Your task to perform on an android device: change the clock display to digital Image 0: 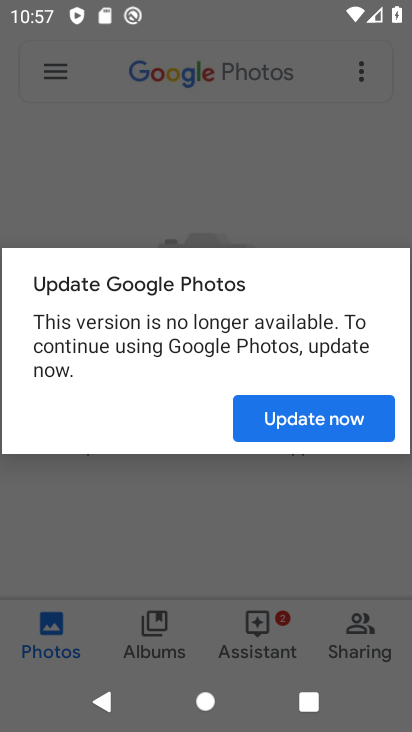
Step 0: click (355, 420)
Your task to perform on an android device: change the clock display to digital Image 1: 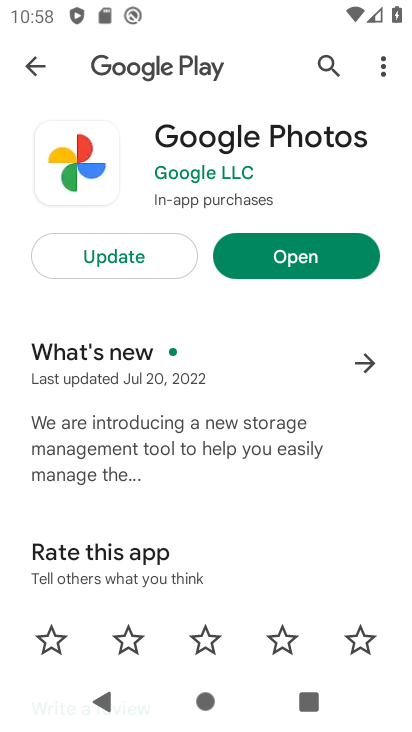
Step 1: press home button
Your task to perform on an android device: change the clock display to digital Image 2: 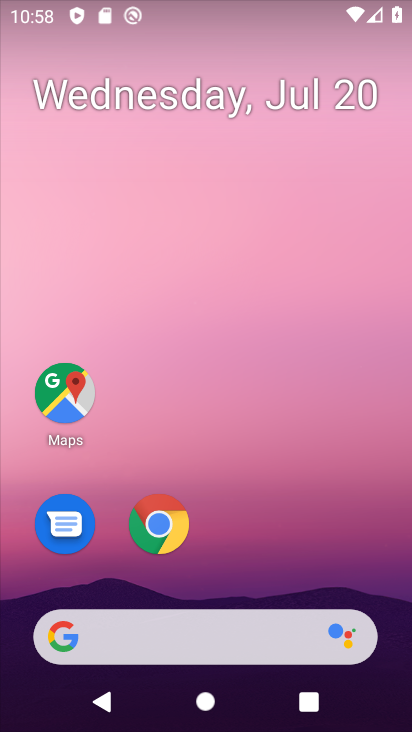
Step 2: drag from (269, 538) to (335, 59)
Your task to perform on an android device: change the clock display to digital Image 3: 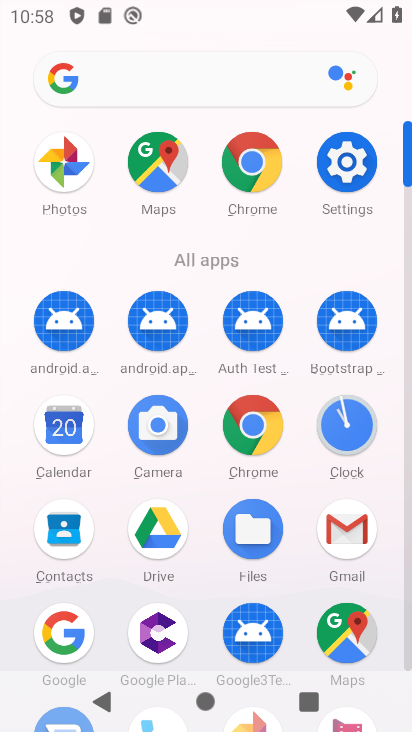
Step 3: click (350, 155)
Your task to perform on an android device: change the clock display to digital Image 4: 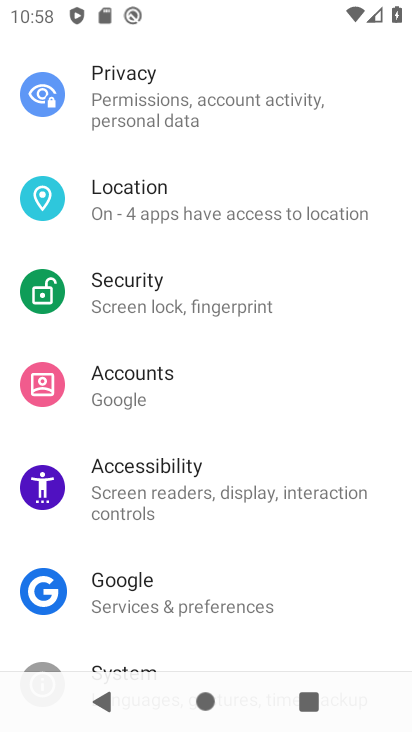
Step 4: press home button
Your task to perform on an android device: change the clock display to digital Image 5: 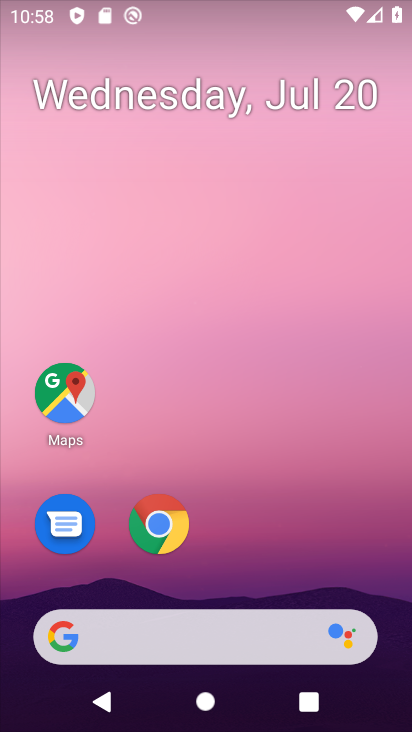
Step 5: drag from (335, 543) to (369, 80)
Your task to perform on an android device: change the clock display to digital Image 6: 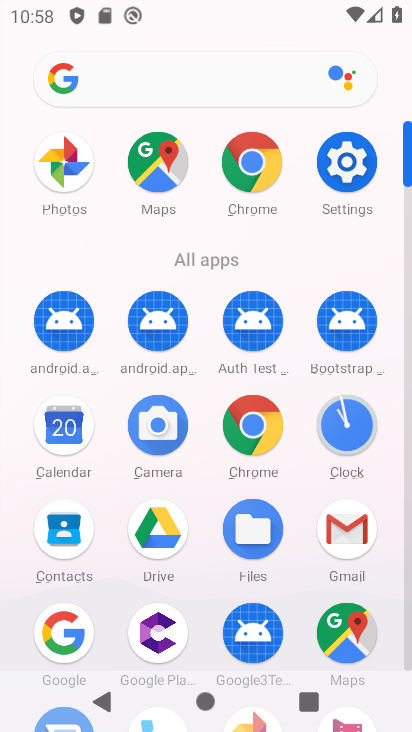
Step 6: click (350, 412)
Your task to perform on an android device: change the clock display to digital Image 7: 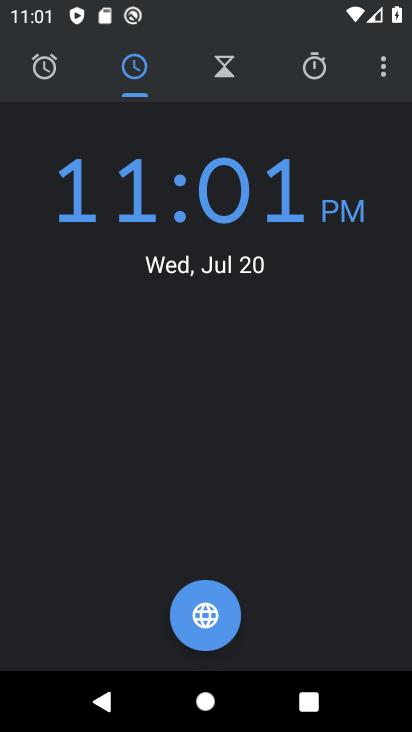
Step 7: task complete